Your task to perform on an android device: turn off smart reply in the gmail app Image 0: 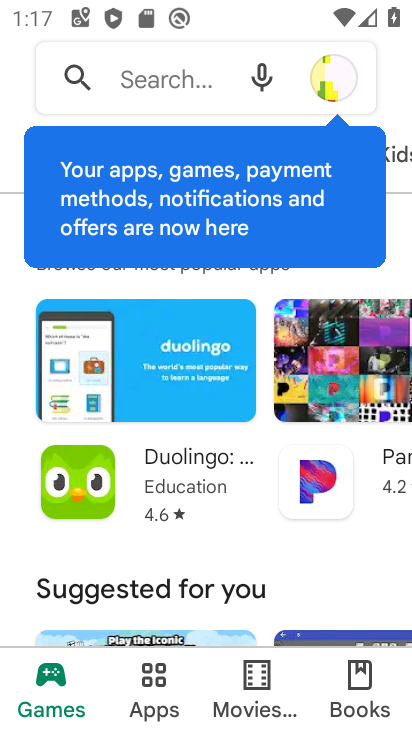
Step 0: press home button
Your task to perform on an android device: turn off smart reply in the gmail app Image 1: 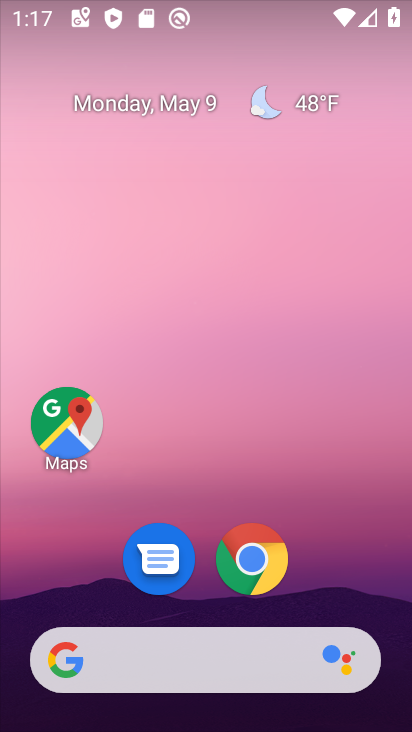
Step 1: drag from (351, 591) to (353, 214)
Your task to perform on an android device: turn off smart reply in the gmail app Image 2: 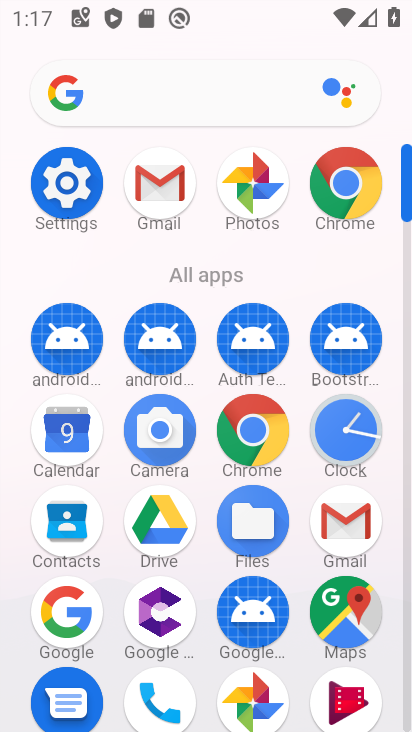
Step 2: click (154, 181)
Your task to perform on an android device: turn off smart reply in the gmail app Image 3: 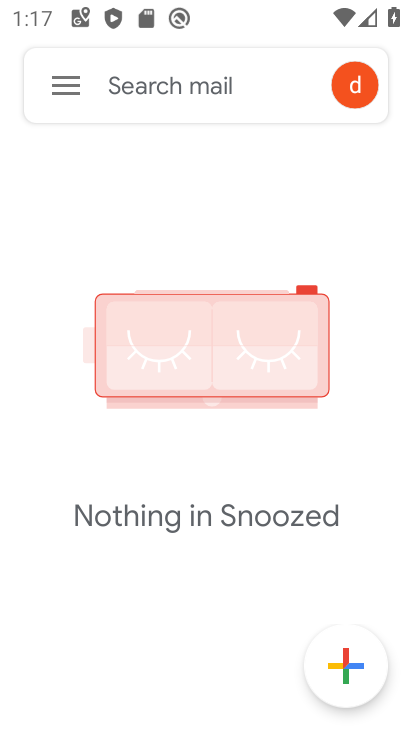
Step 3: click (60, 82)
Your task to perform on an android device: turn off smart reply in the gmail app Image 4: 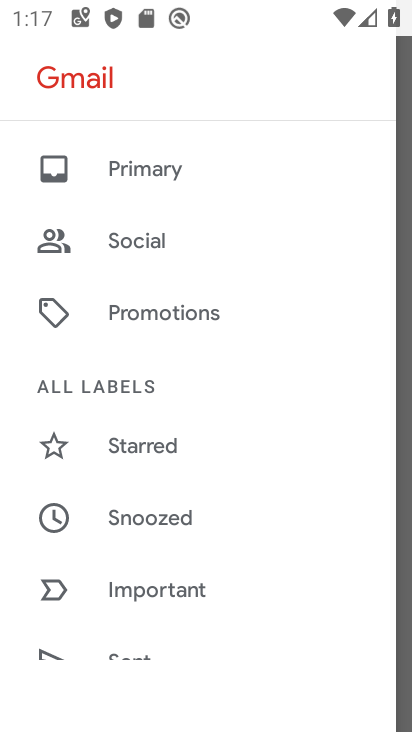
Step 4: drag from (187, 618) to (242, 185)
Your task to perform on an android device: turn off smart reply in the gmail app Image 5: 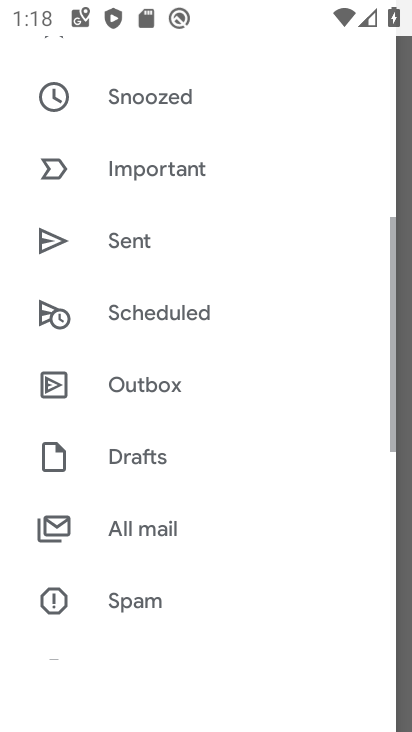
Step 5: drag from (263, 566) to (250, 168)
Your task to perform on an android device: turn off smart reply in the gmail app Image 6: 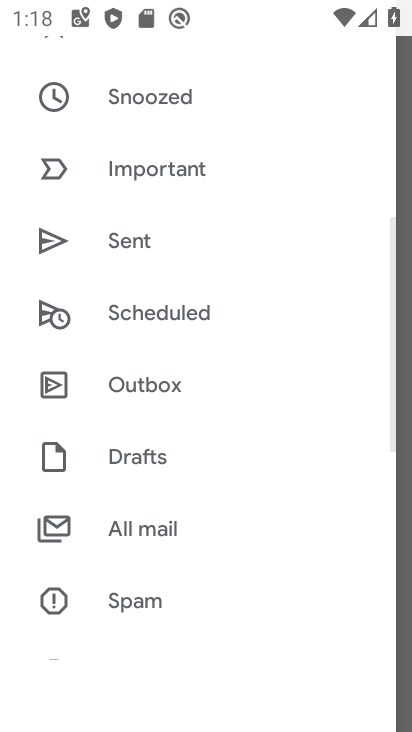
Step 6: drag from (170, 372) to (188, 212)
Your task to perform on an android device: turn off smart reply in the gmail app Image 7: 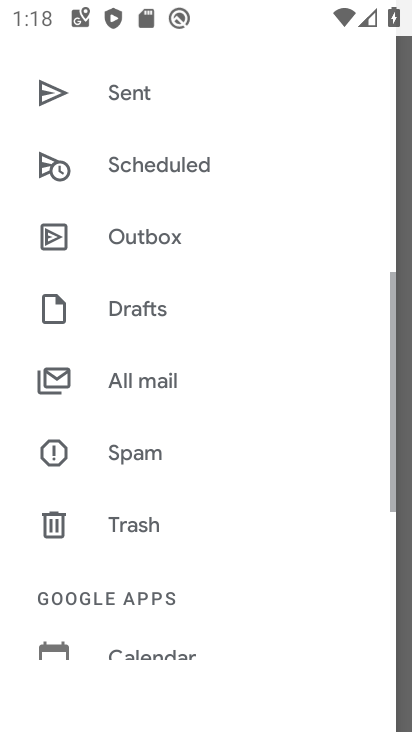
Step 7: drag from (156, 556) to (197, 278)
Your task to perform on an android device: turn off smart reply in the gmail app Image 8: 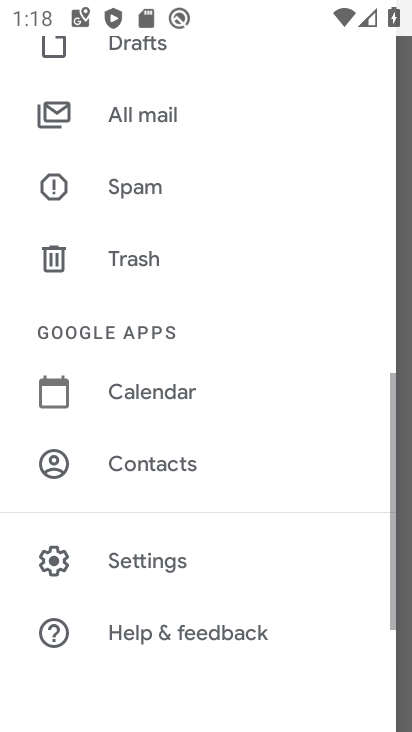
Step 8: drag from (160, 490) to (214, 203)
Your task to perform on an android device: turn off smart reply in the gmail app Image 9: 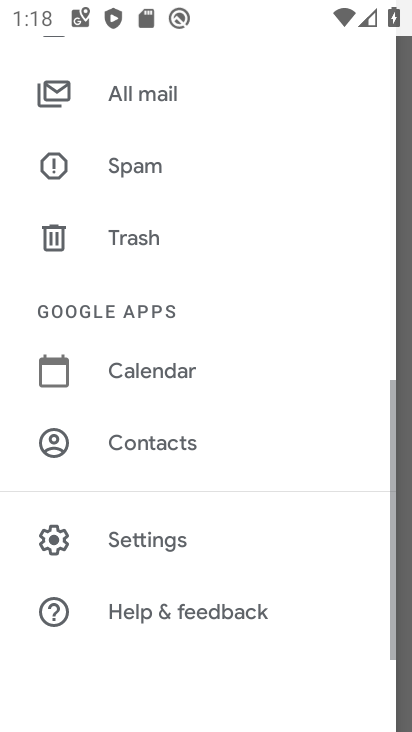
Step 9: drag from (170, 535) to (209, 289)
Your task to perform on an android device: turn off smart reply in the gmail app Image 10: 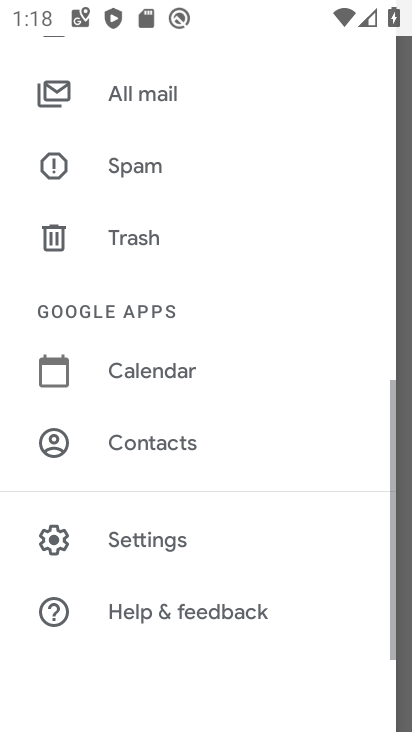
Step 10: click (132, 535)
Your task to perform on an android device: turn off smart reply in the gmail app Image 11: 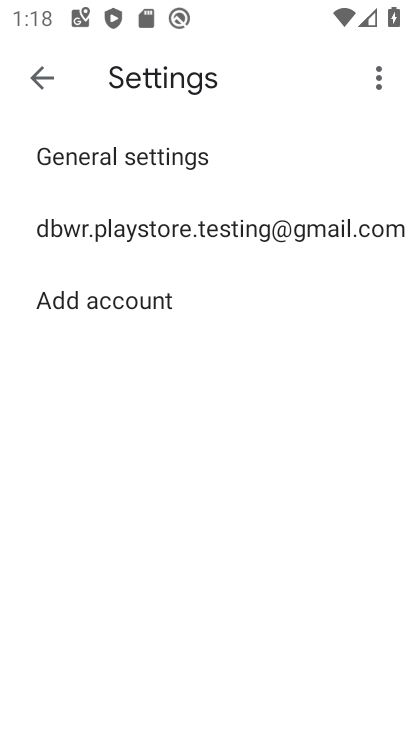
Step 11: click (131, 213)
Your task to perform on an android device: turn off smart reply in the gmail app Image 12: 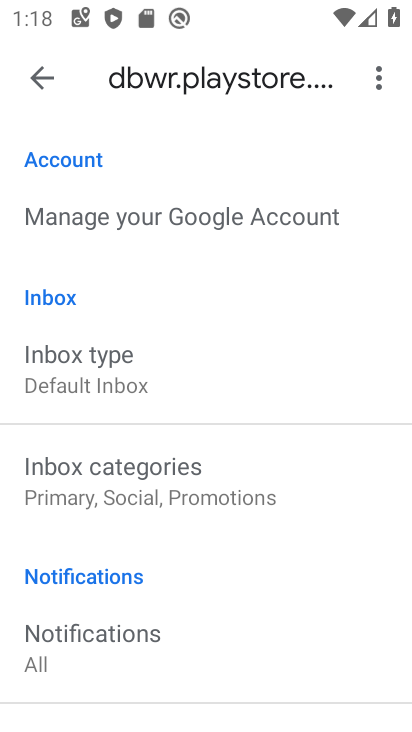
Step 12: drag from (182, 645) to (235, 238)
Your task to perform on an android device: turn off smart reply in the gmail app Image 13: 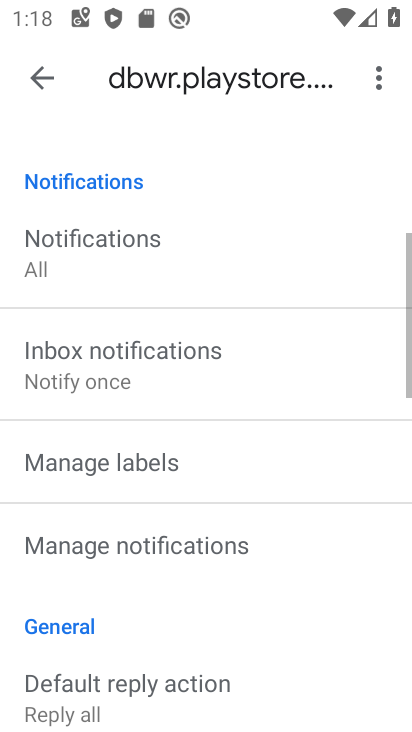
Step 13: drag from (236, 592) to (275, 221)
Your task to perform on an android device: turn off smart reply in the gmail app Image 14: 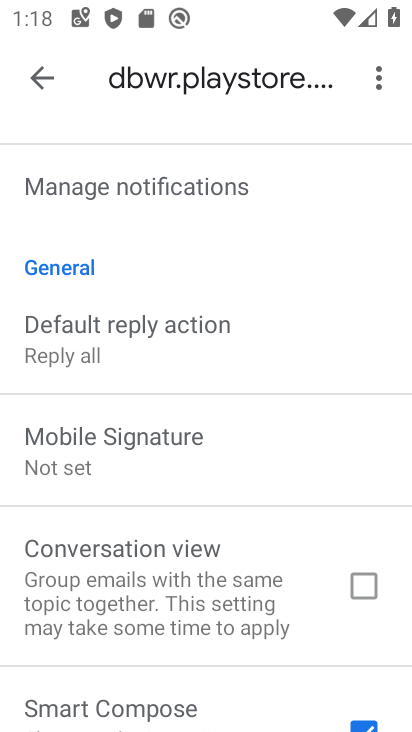
Step 14: drag from (199, 643) to (258, 130)
Your task to perform on an android device: turn off smart reply in the gmail app Image 15: 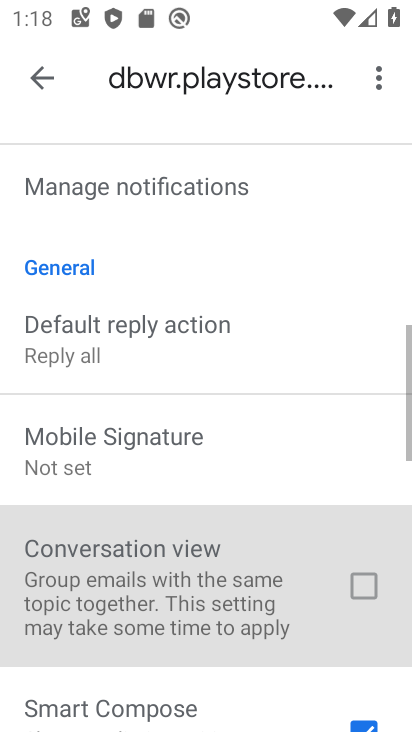
Step 15: drag from (124, 526) to (179, 216)
Your task to perform on an android device: turn off smart reply in the gmail app Image 16: 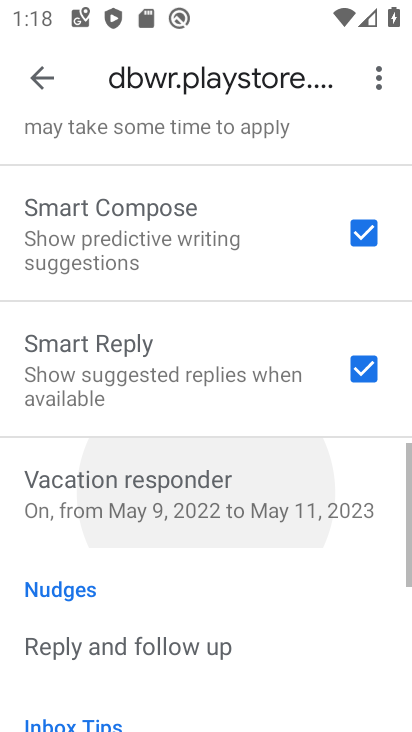
Step 16: drag from (155, 591) to (230, 229)
Your task to perform on an android device: turn off smart reply in the gmail app Image 17: 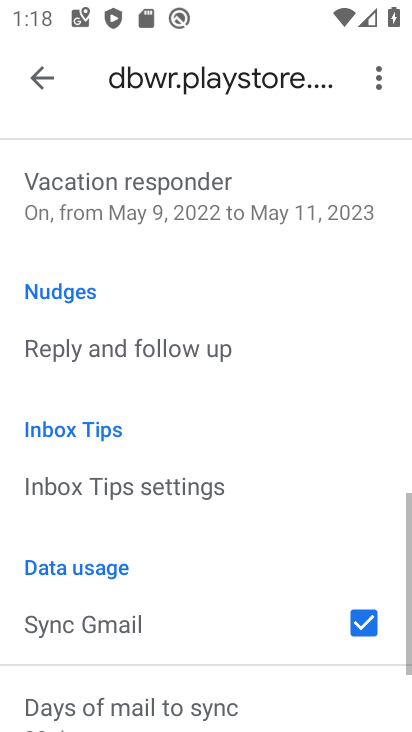
Step 17: drag from (188, 581) to (230, 327)
Your task to perform on an android device: turn off smart reply in the gmail app Image 18: 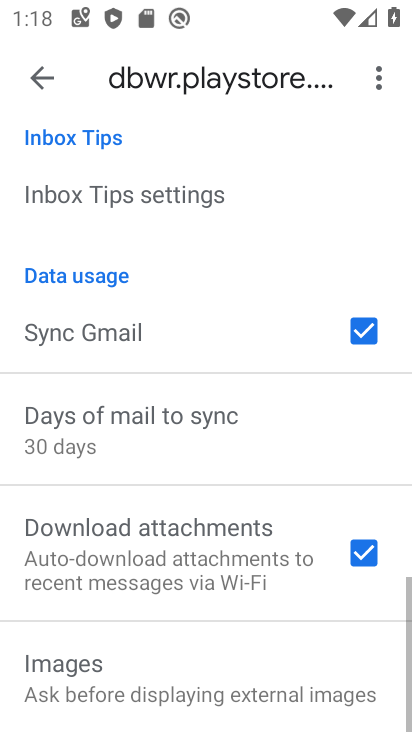
Step 18: click (43, 85)
Your task to perform on an android device: turn off smart reply in the gmail app Image 19: 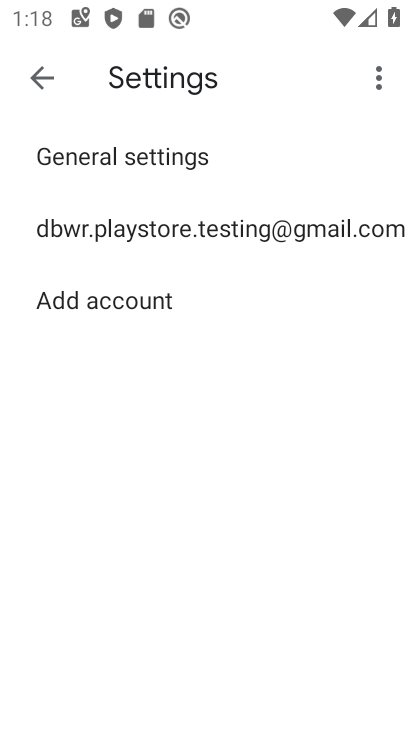
Step 19: click (249, 207)
Your task to perform on an android device: turn off smart reply in the gmail app Image 20: 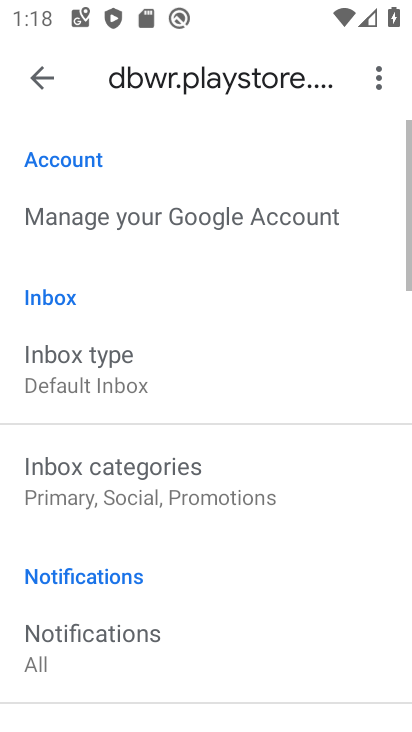
Step 20: task complete